Your task to perform on an android device: turn vacation reply on in the gmail app Image 0: 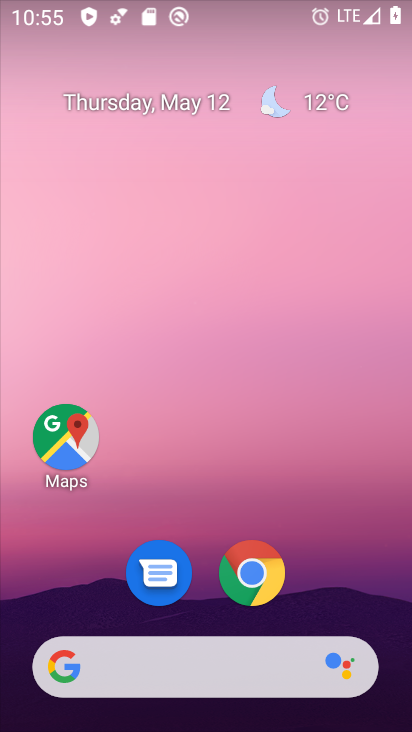
Step 0: drag from (157, 724) to (76, 38)
Your task to perform on an android device: turn vacation reply on in the gmail app Image 1: 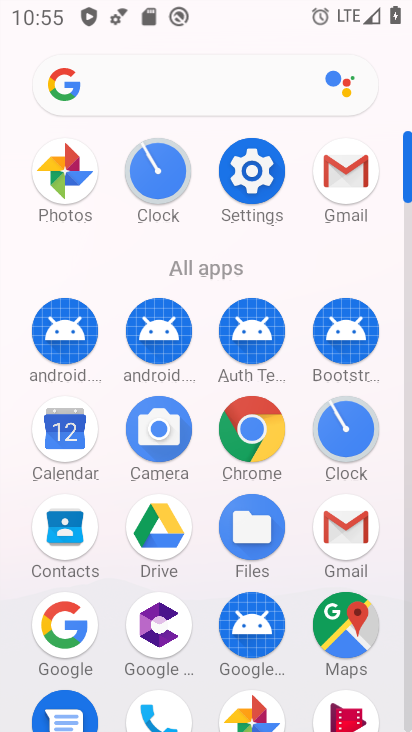
Step 1: click (331, 183)
Your task to perform on an android device: turn vacation reply on in the gmail app Image 2: 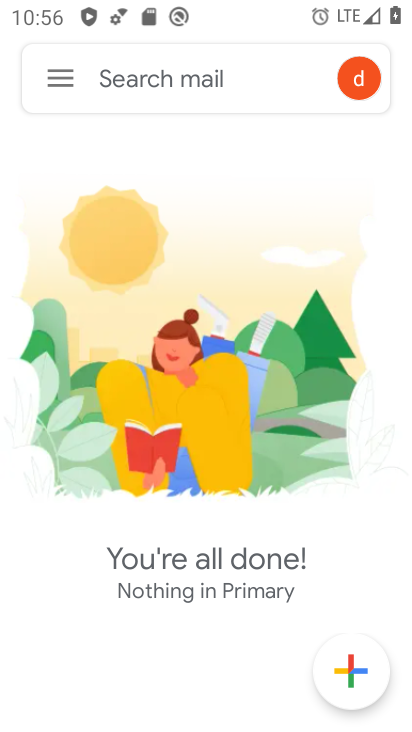
Step 2: click (55, 83)
Your task to perform on an android device: turn vacation reply on in the gmail app Image 3: 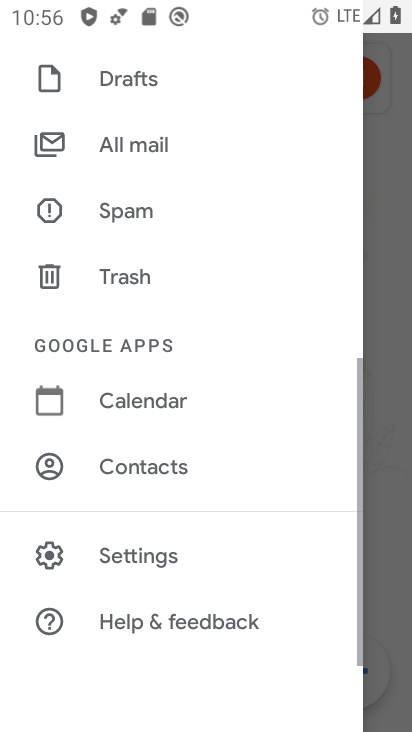
Step 3: click (178, 559)
Your task to perform on an android device: turn vacation reply on in the gmail app Image 4: 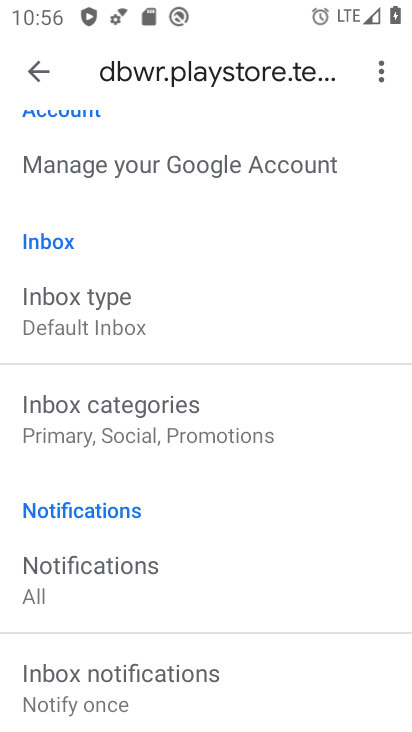
Step 4: drag from (205, 637) to (198, 178)
Your task to perform on an android device: turn vacation reply on in the gmail app Image 5: 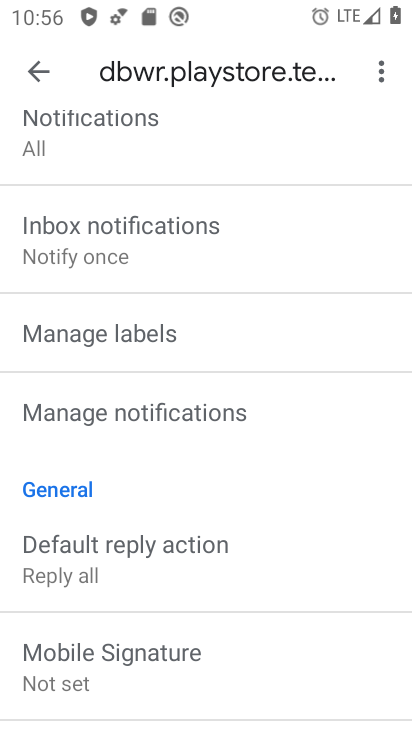
Step 5: drag from (260, 648) to (276, 53)
Your task to perform on an android device: turn vacation reply on in the gmail app Image 6: 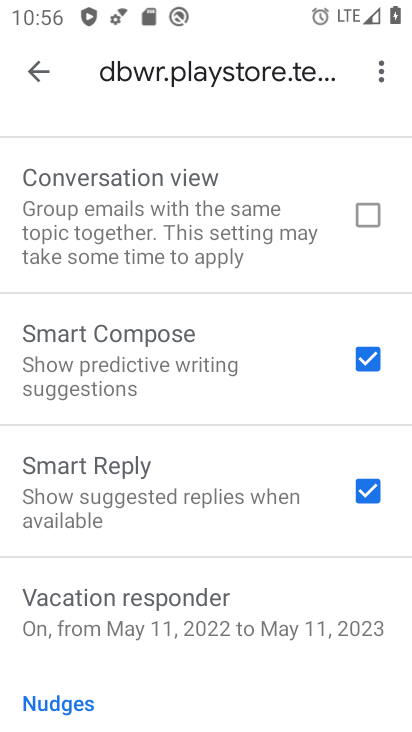
Step 6: click (253, 606)
Your task to perform on an android device: turn vacation reply on in the gmail app Image 7: 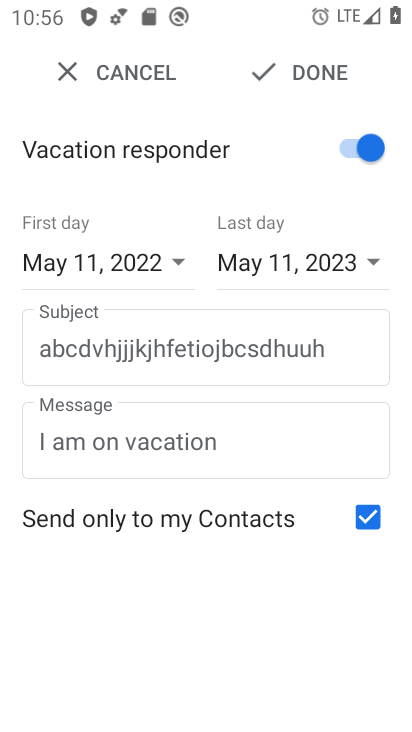
Step 7: click (308, 79)
Your task to perform on an android device: turn vacation reply on in the gmail app Image 8: 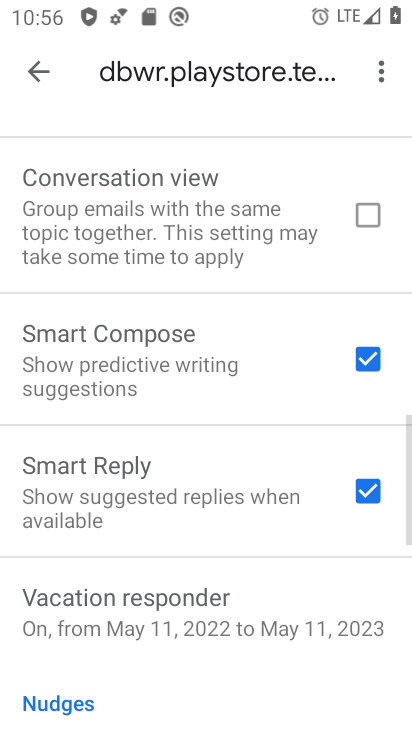
Step 8: task complete